Your task to perform on an android device: Open settings Image 0: 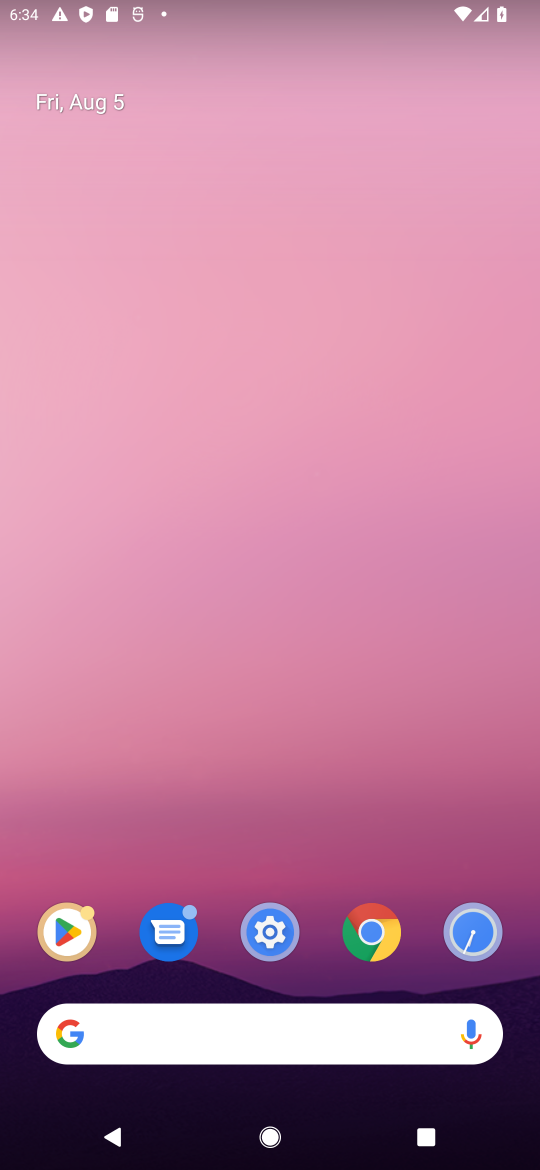
Step 0: click (270, 935)
Your task to perform on an android device: Open settings Image 1: 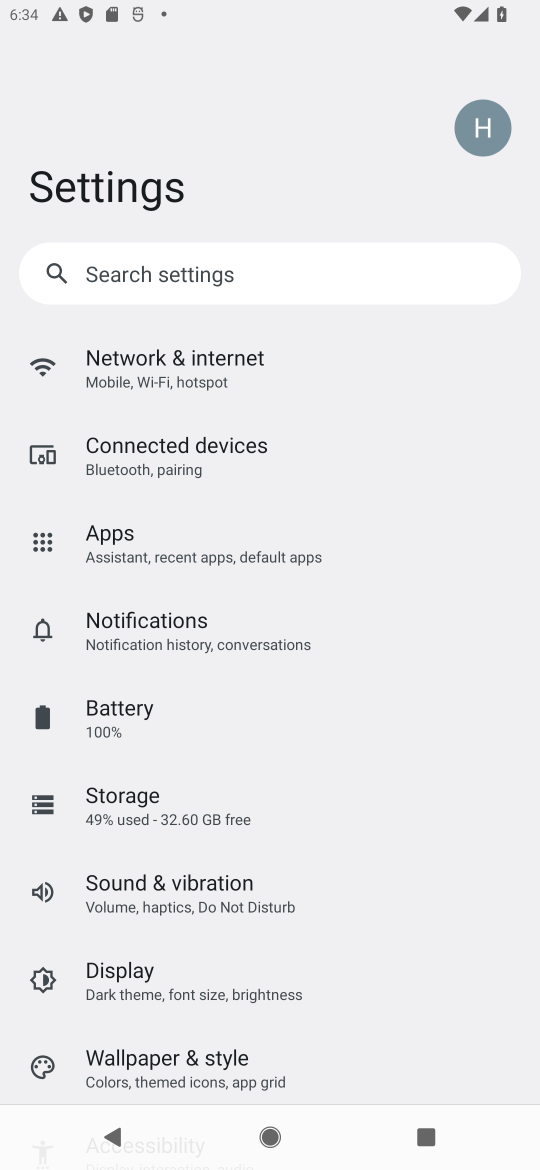
Step 1: task complete